Your task to perform on an android device: turn off sleep mode Image 0: 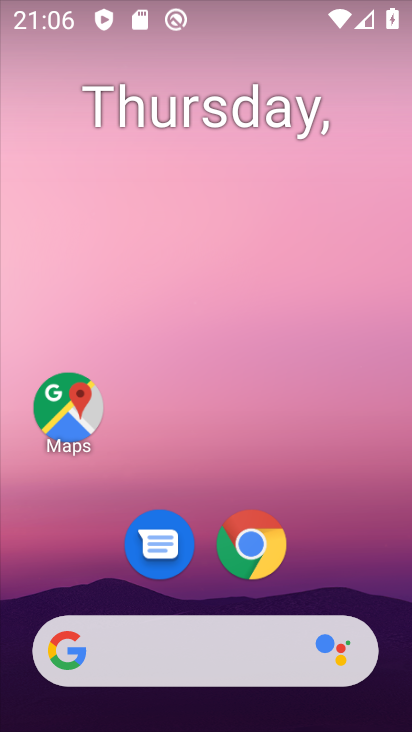
Step 0: drag from (157, 720) to (161, 424)
Your task to perform on an android device: turn off sleep mode Image 1: 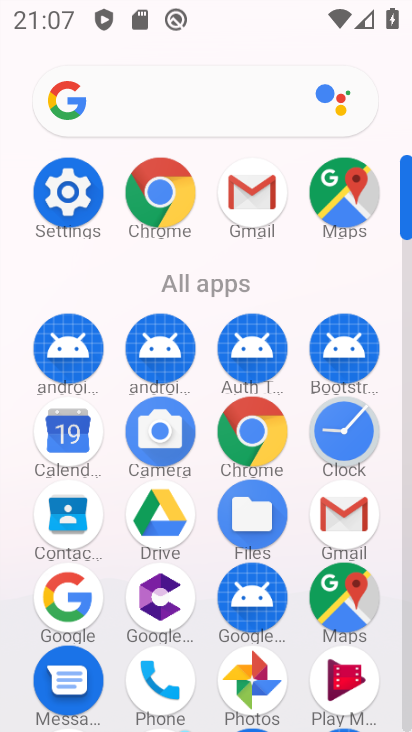
Step 1: click (68, 173)
Your task to perform on an android device: turn off sleep mode Image 2: 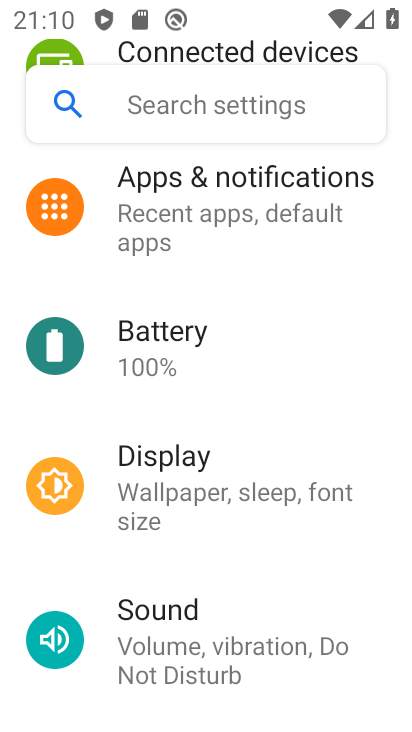
Step 2: click (232, 492)
Your task to perform on an android device: turn off sleep mode Image 3: 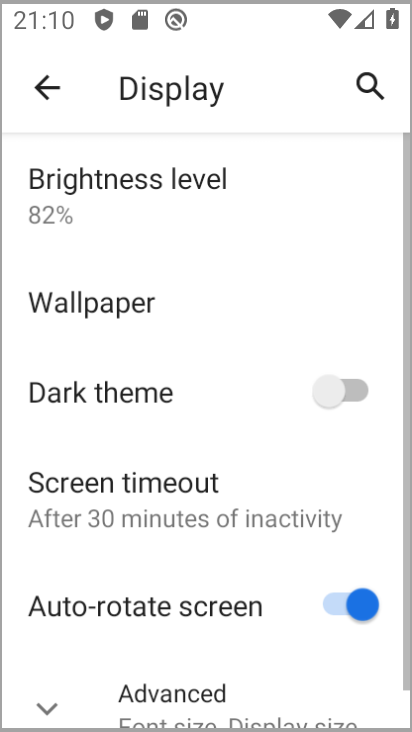
Step 3: task complete